Your task to perform on an android device: Open calendar and show me the third week of next month Image 0: 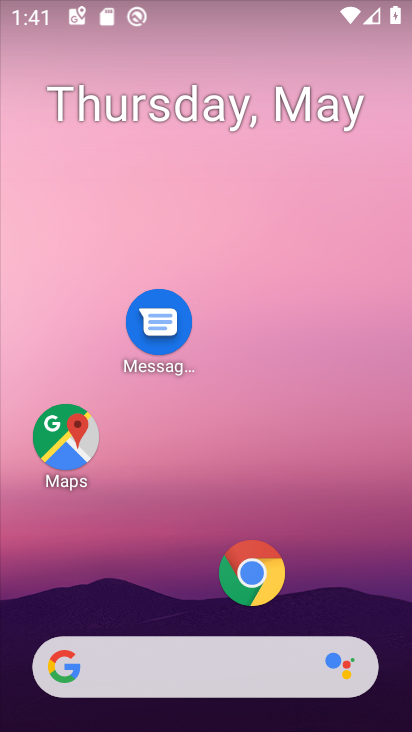
Step 0: drag from (173, 487) to (201, 164)
Your task to perform on an android device: Open calendar and show me the third week of next month Image 1: 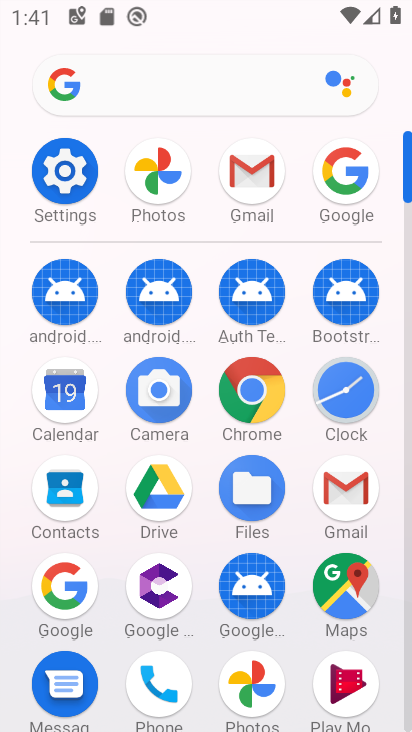
Step 1: click (57, 398)
Your task to perform on an android device: Open calendar and show me the third week of next month Image 2: 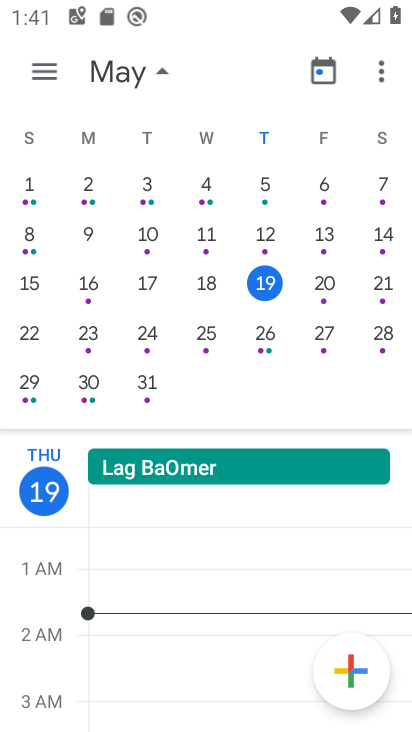
Step 2: drag from (337, 300) to (17, 349)
Your task to perform on an android device: Open calendar and show me the third week of next month Image 3: 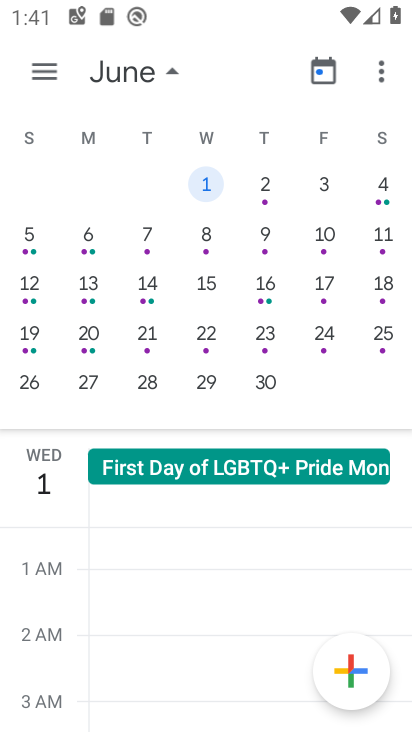
Step 3: click (255, 289)
Your task to perform on an android device: Open calendar and show me the third week of next month Image 4: 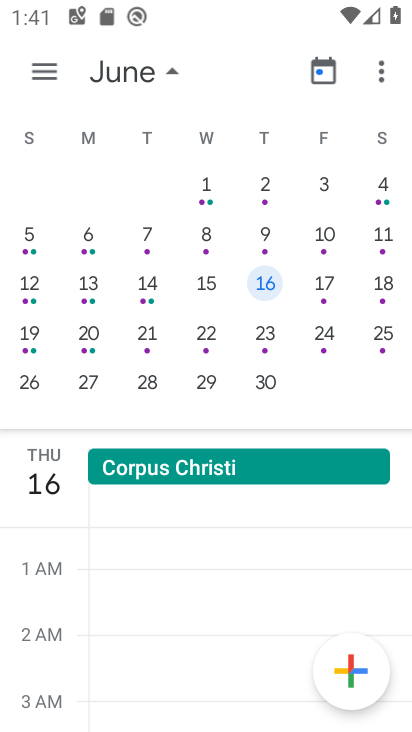
Step 4: drag from (301, 542) to (279, 330)
Your task to perform on an android device: Open calendar and show me the third week of next month Image 5: 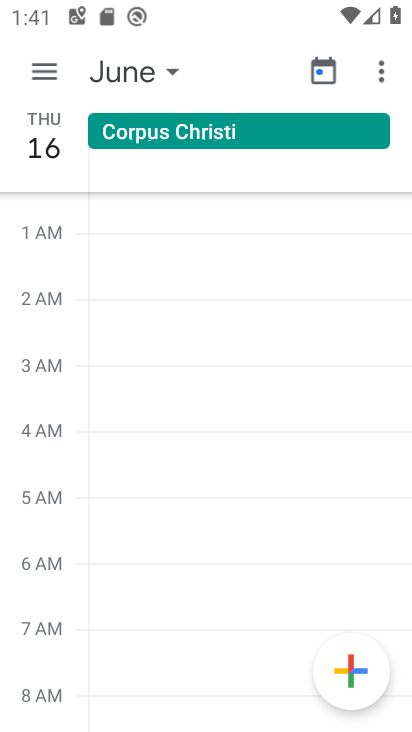
Step 5: click (163, 93)
Your task to perform on an android device: Open calendar and show me the third week of next month Image 6: 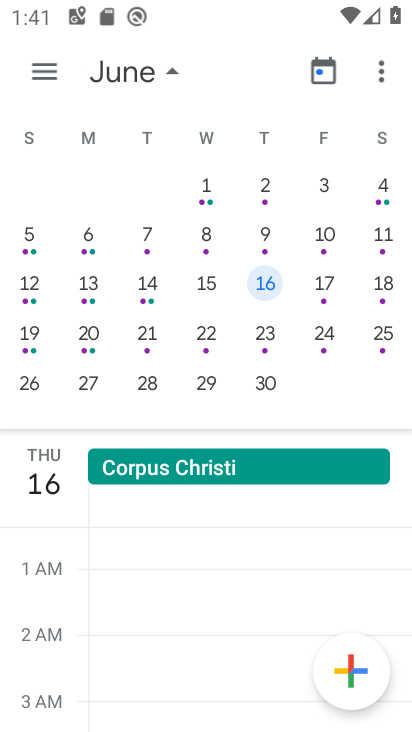
Step 6: task complete